Your task to perform on an android device: open app "Expedia: Hotels, Flights & Car" Image 0: 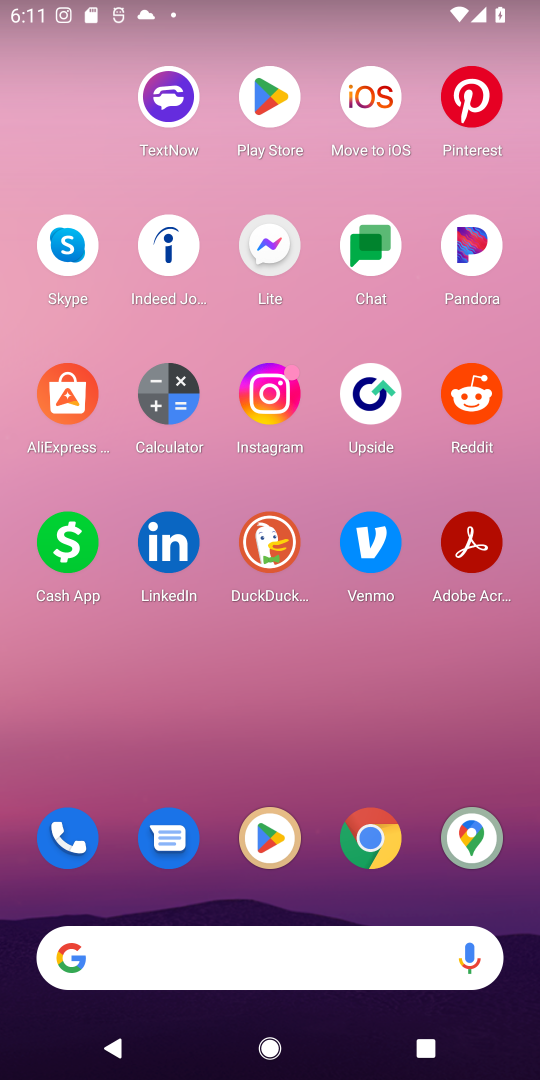
Step 0: click (264, 860)
Your task to perform on an android device: open app "Expedia: Hotels, Flights & Car" Image 1: 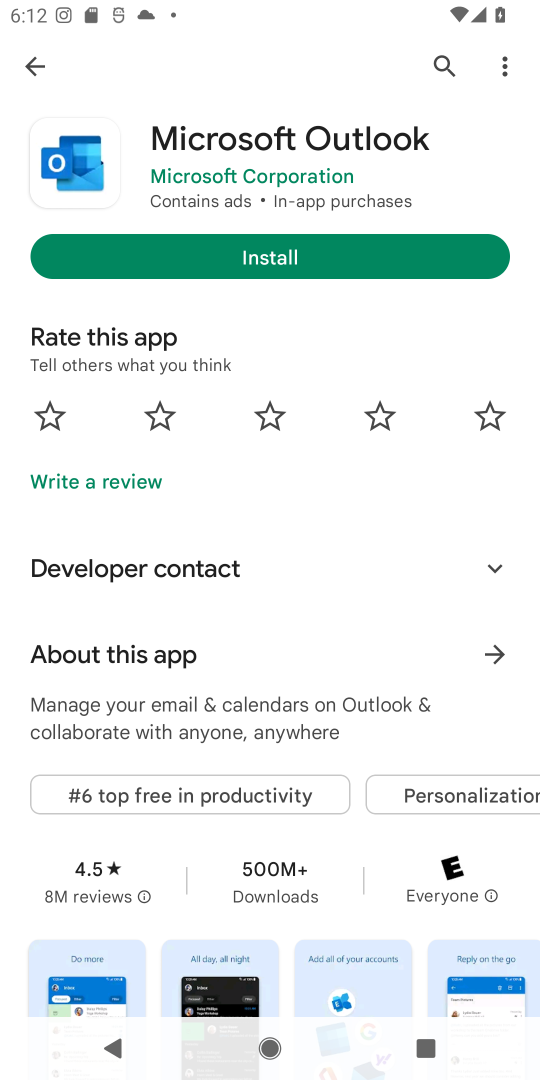
Step 1: click (438, 68)
Your task to perform on an android device: open app "Expedia: Hotels, Flights & Car" Image 2: 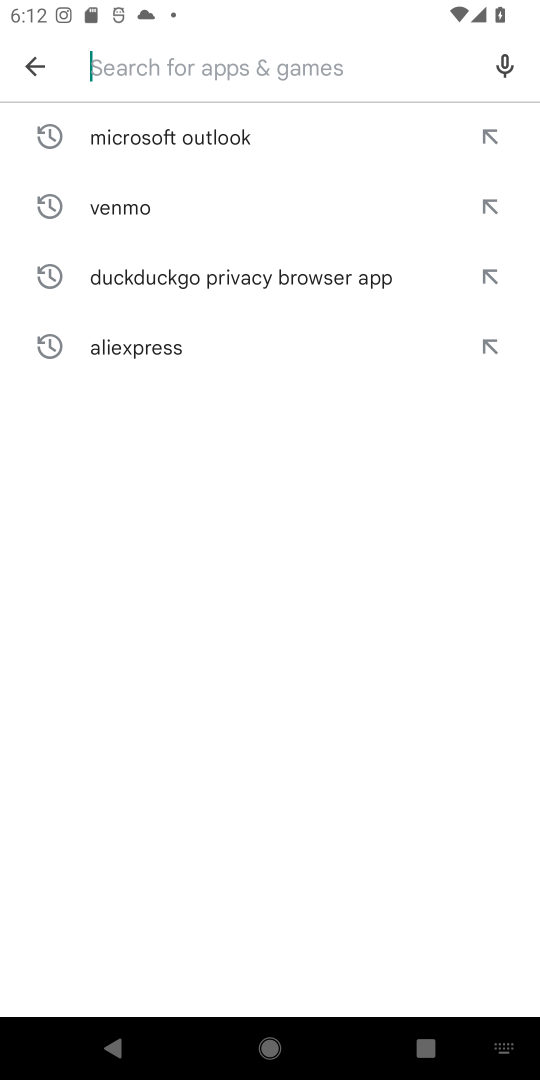
Step 2: type "Expedia: Hotels, Flights & Car"
Your task to perform on an android device: open app "Expedia: Hotels, Flights & Car" Image 3: 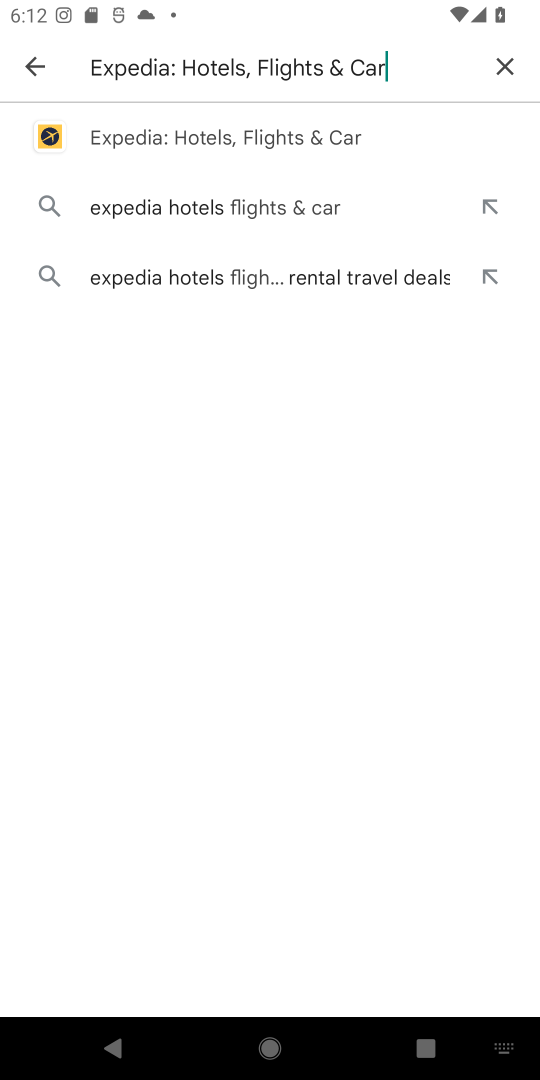
Step 3: click (251, 136)
Your task to perform on an android device: open app "Expedia: Hotels, Flights & Car" Image 4: 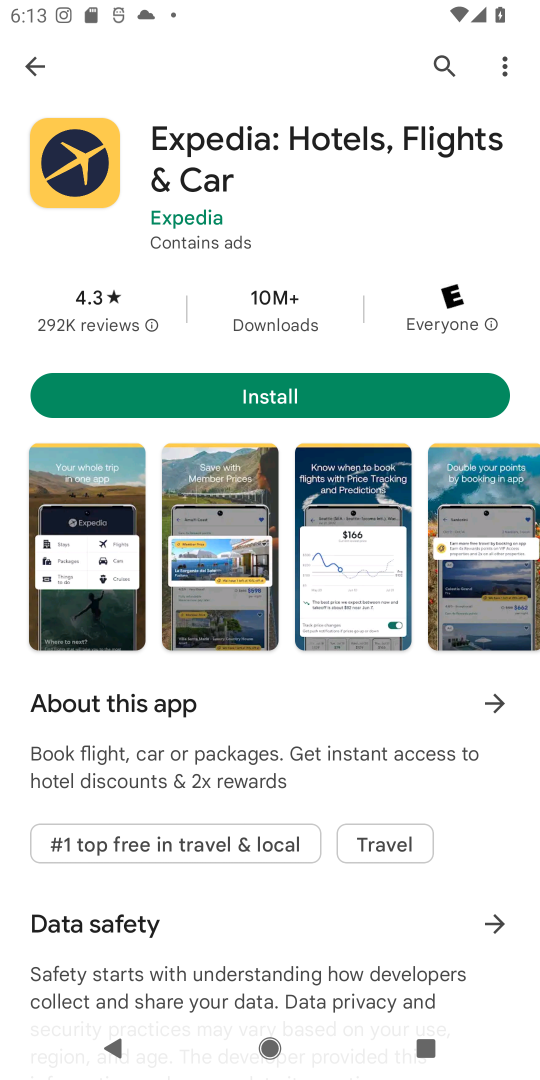
Step 4: task complete